Your task to perform on an android device: Go to display settings Image 0: 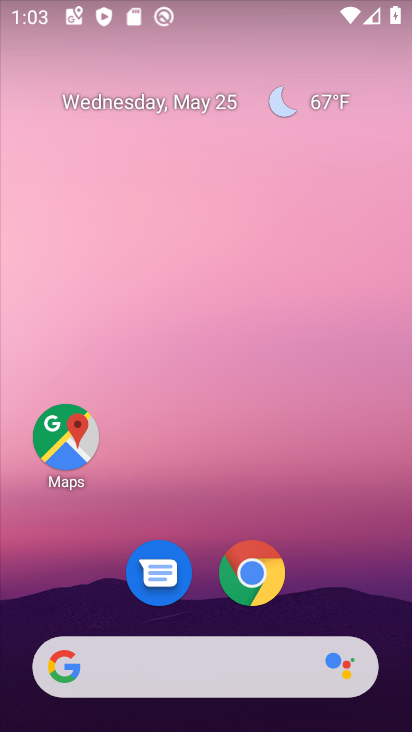
Step 0: drag from (70, 622) to (201, 158)
Your task to perform on an android device: Go to display settings Image 1: 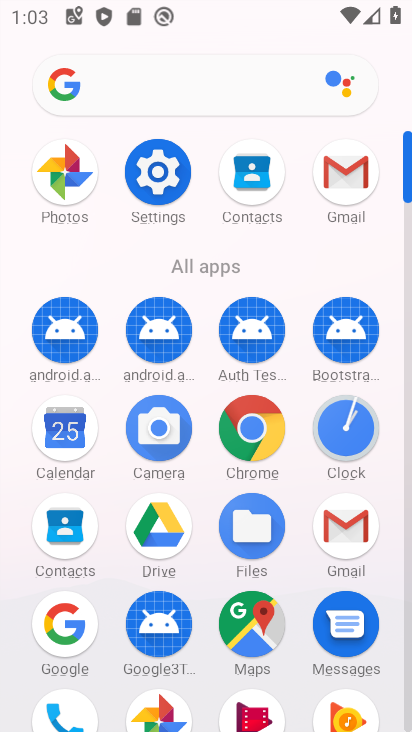
Step 1: drag from (161, 678) to (233, 410)
Your task to perform on an android device: Go to display settings Image 2: 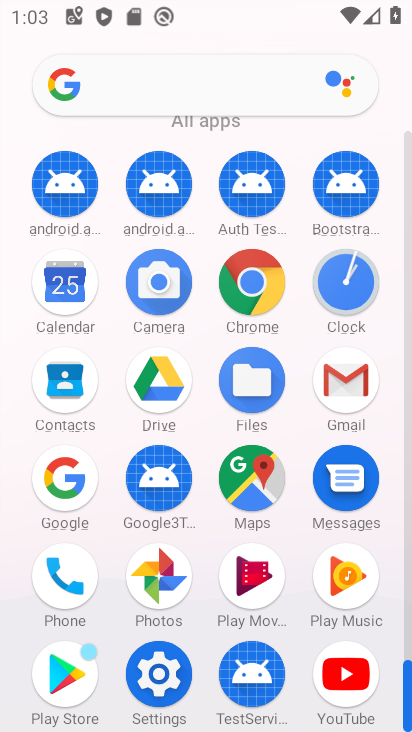
Step 2: click (151, 678)
Your task to perform on an android device: Go to display settings Image 3: 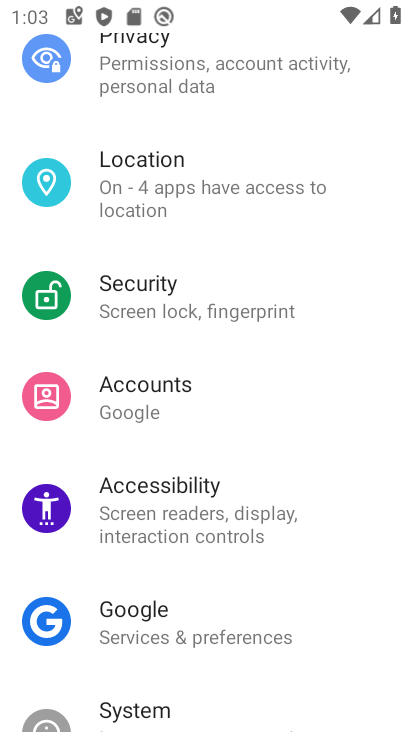
Step 3: drag from (320, 142) to (268, 520)
Your task to perform on an android device: Go to display settings Image 4: 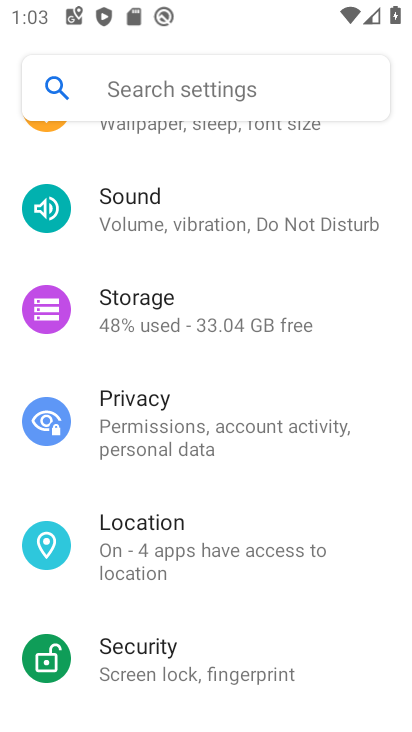
Step 4: drag from (269, 248) to (203, 573)
Your task to perform on an android device: Go to display settings Image 5: 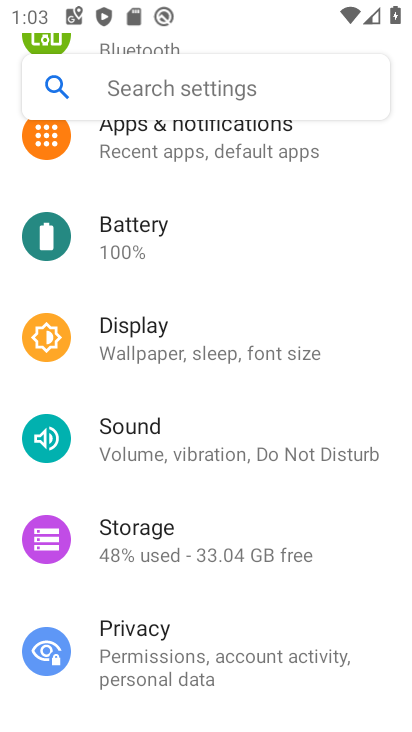
Step 5: click (206, 342)
Your task to perform on an android device: Go to display settings Image 6: 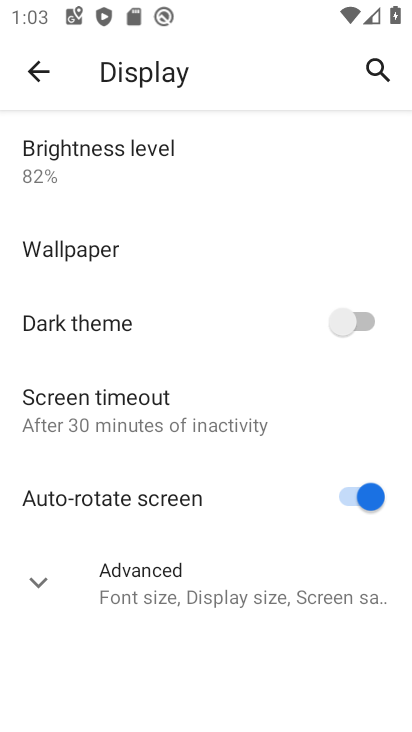
Step 6: click (202, 584)
Your task to perform on an android device: Go to display settings Image 7: 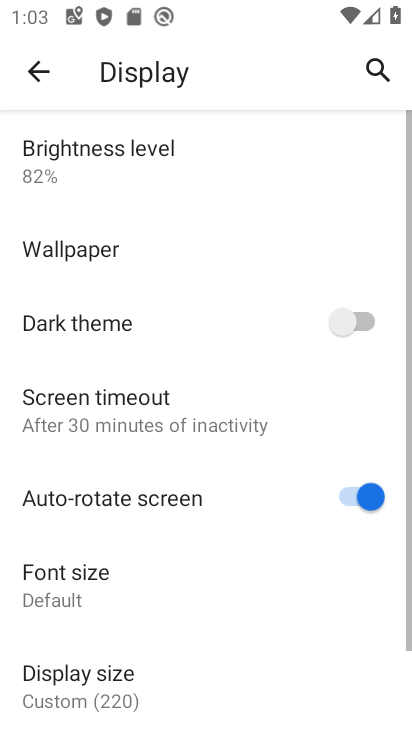
Step 7: task complete